Your task to perform on an android device: check out phone information Image 0: 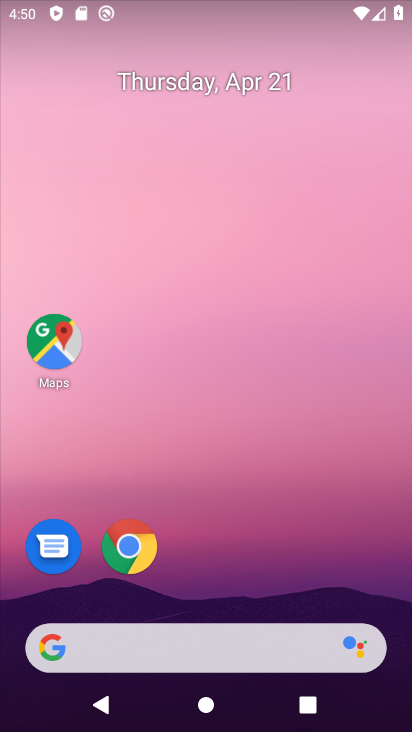
Step 0: drag from (278, 573) to (291, 0)
Your task to perform on an android device: check out phone information Image 1: 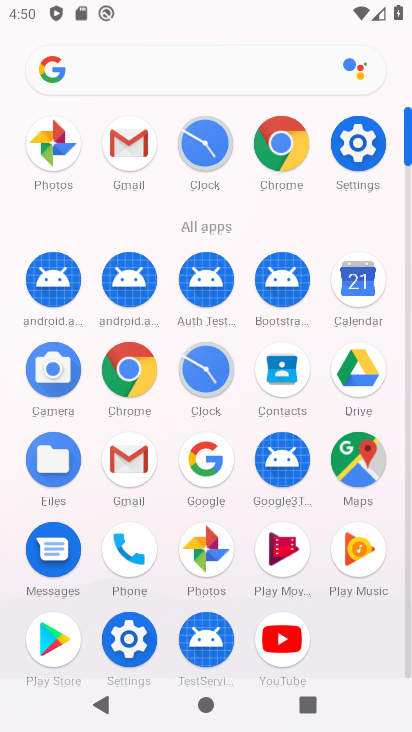
Step 1: click (362, 156)
Your task to perform on an android device: check out phone information Image 2: 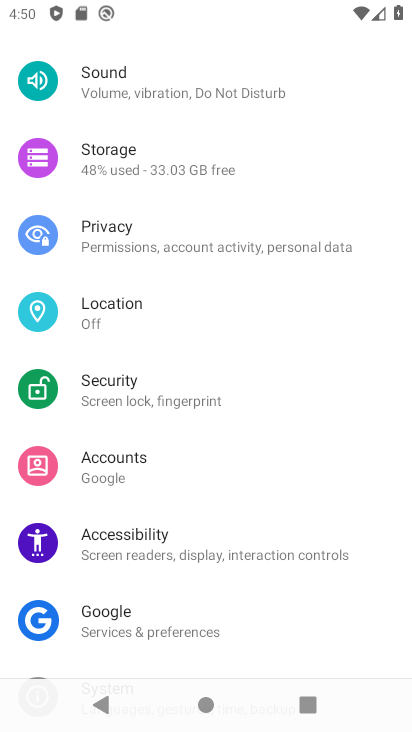
Step 2: drag from (258, 610) to (325, 102)
Your task to perform on an android device: check out phone information Image 3: 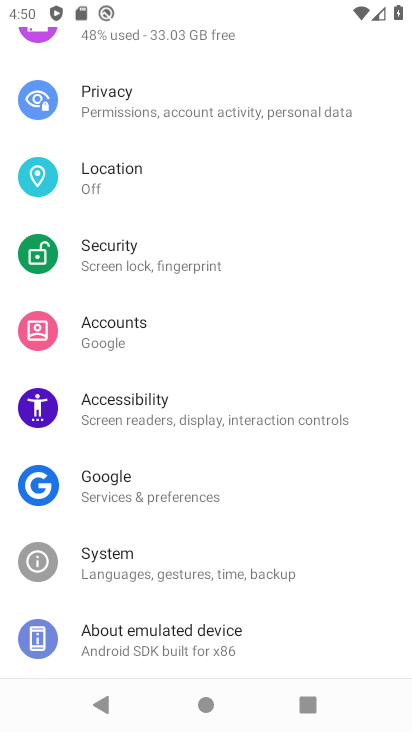
Step 3: click (221, 639)
Your task to perform on an android device: check out phone information Image 4: 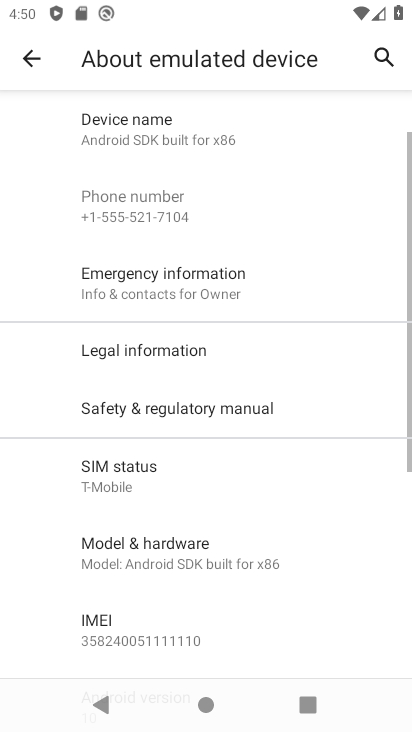
Step 4: drag from (274, 570) to (306, 310)
Your task to perform on an android device: check out phone information Image 5: 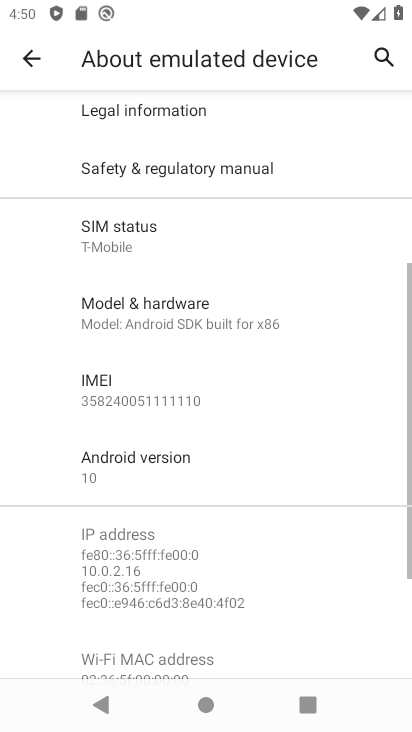
Step 5: click (240, 303)
Your task to perform on an android device: check out phone information Image 6: 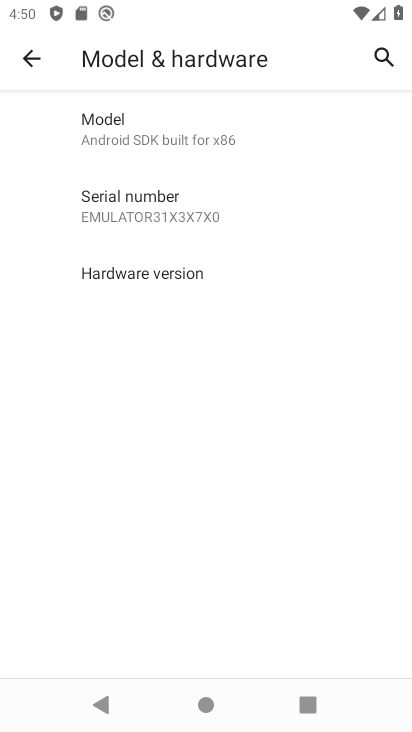
Step 6: task complete